Your task to perform on an android device: turn on the 24-hour format for clock Image 0: 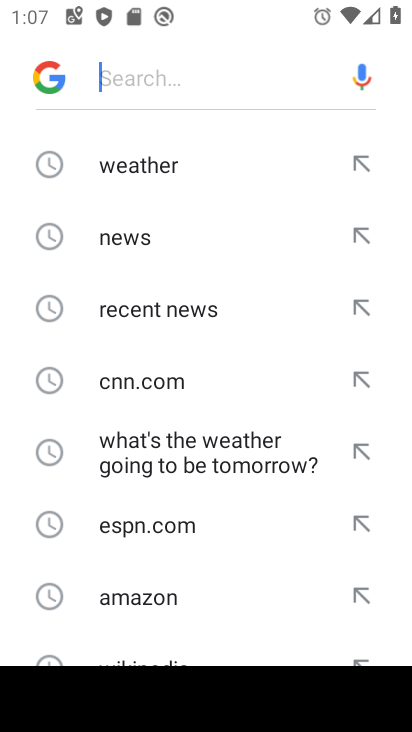
Step 0: press back button
Your task to perform on an android device: turn on the 24-hour format for clock Image 1: 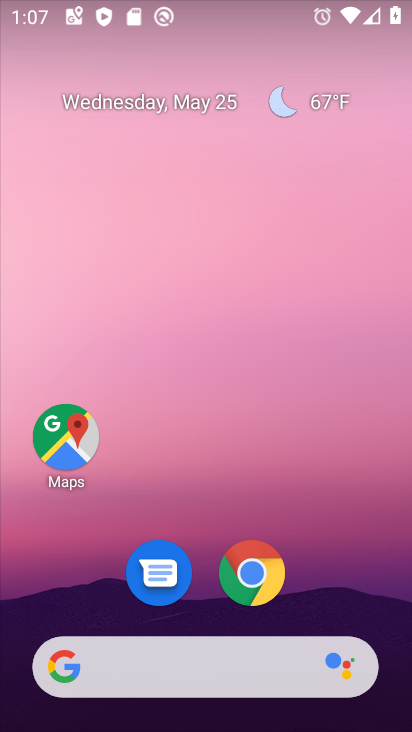
Step 1: drag from (98, 627) to (144, 165)
Your task to perform on an android device: turn on the 24-hour format for clock Image 2: 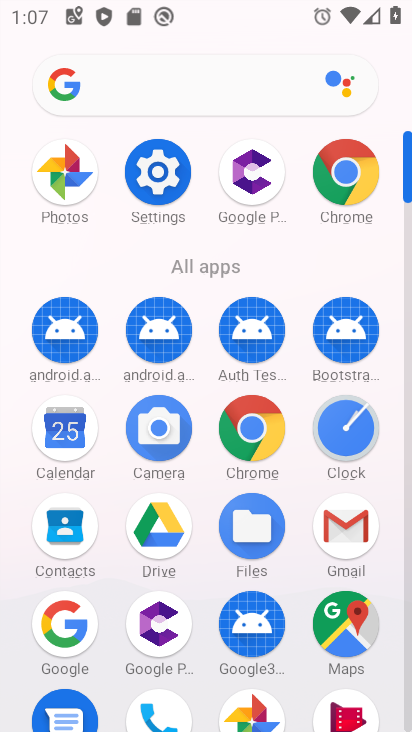
Step 2: click (350, 440)
Your task to perform on an android device: turn on the 24-hour format for clock Image 3: 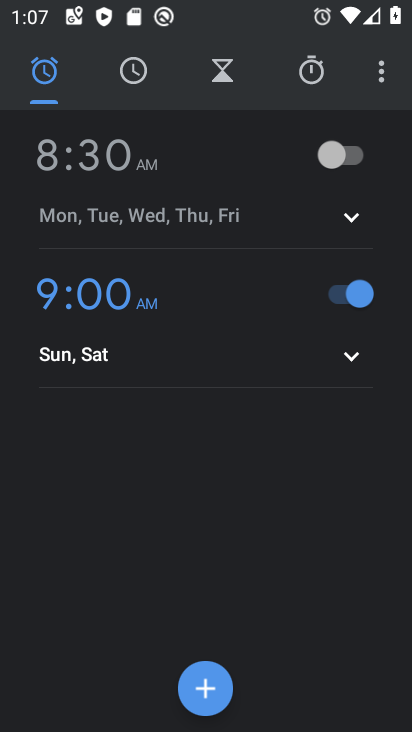
Step 3: click (392, 79)
Your task to perform on an android device: turn on the 24-hour format for clock Image 4: 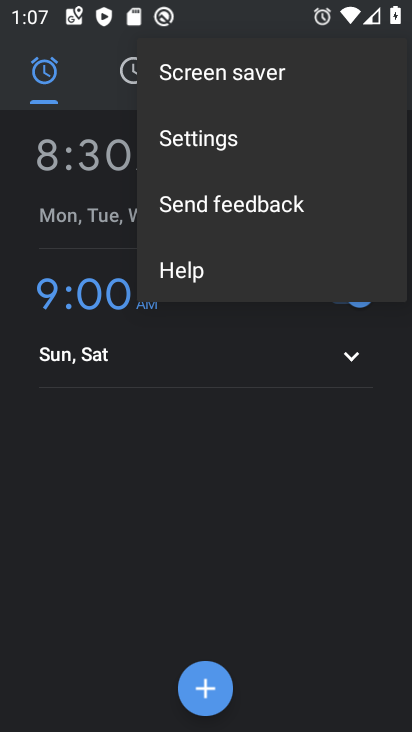
Step 4: click (292, 153)
Your task to perform on an android device: turn on the 24-hour format for clock Image 5: 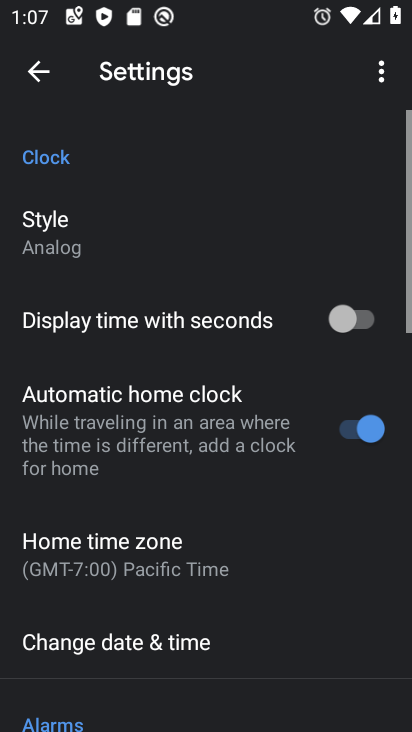
Step 5: drag from (200, 562) to (244, 328)
Your task to perform on an android device: turn on the 24-hour format for clock Image 6: 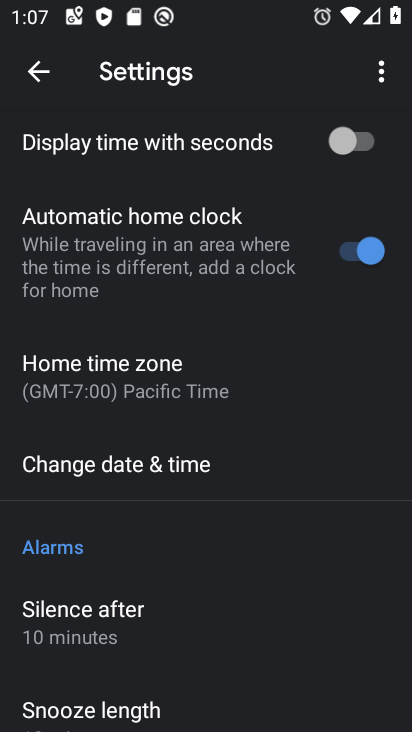
Step 6: click (212, 478)
Your task to perform on an android device: turn on the 24-hour format for clock Image 7: 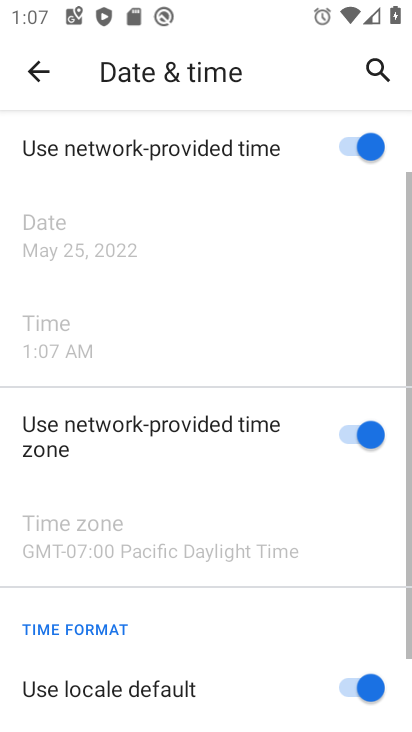
Step 7: drag from (121, 594) to (229, 87)
Your task to perform on an android device: turn on the 24-hour format for clock Image 8: 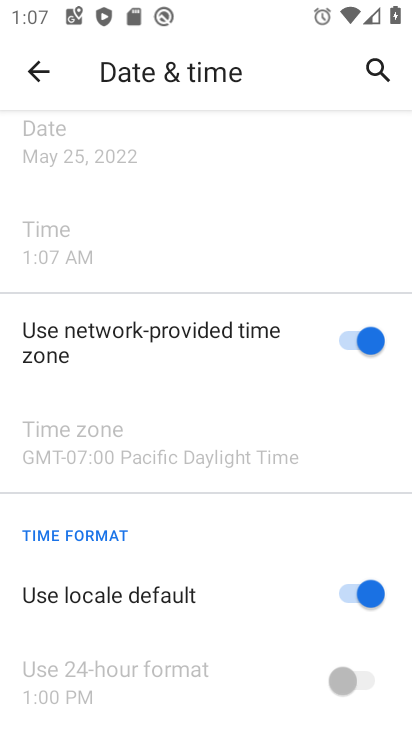
Step 8: click (359, 586)
Your task to perform on an android device: turn on the 24-hour format for clock Image 9: 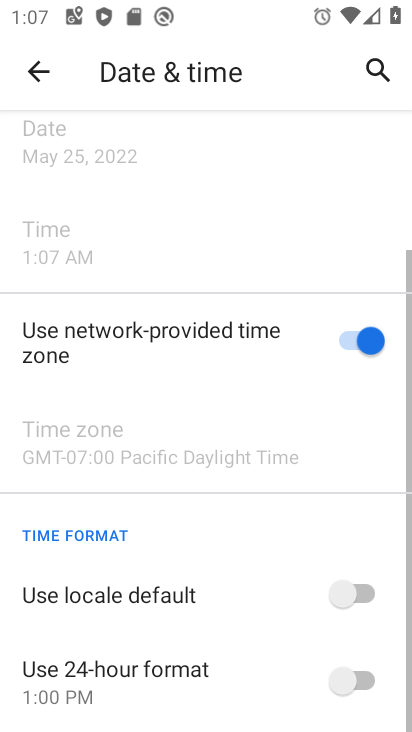
Step 9: click (378, 684)
Your task to perform on an android device: turn on the 24-hour format for clock Image 10: 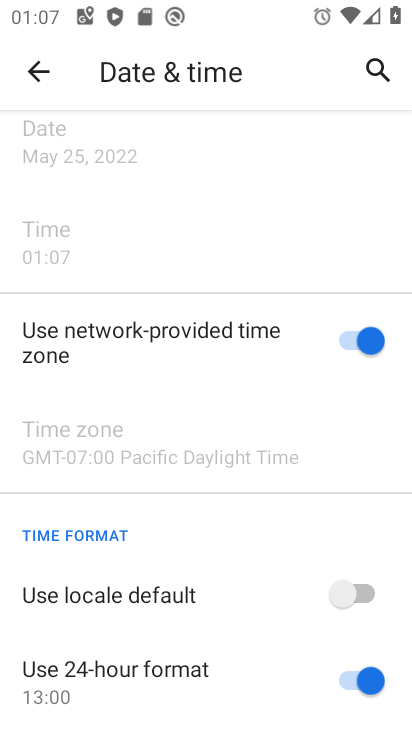
Step 10: task complete